Your task to perform on an android device: Show me some nice wallpapers for my phone Image 0: 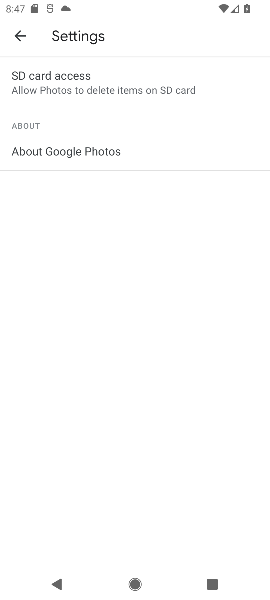
Step 0: press home button
Your task to perform on an android device: Show me some nice wallpapers for my phone Image 1: 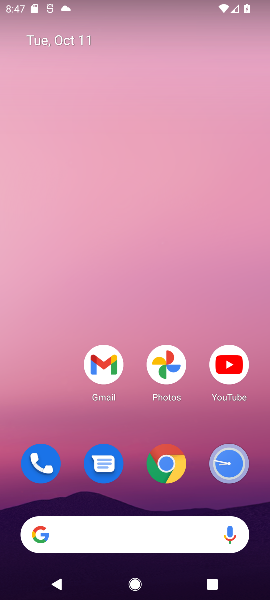
Step 1: drag from (114, 486) to (93, 90)
Your task to perform on an android device: Show me some nice wallpapers for my phone Image 2: 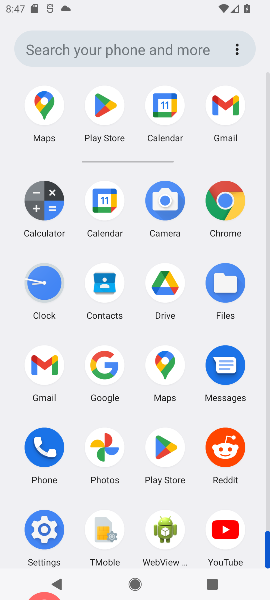
Step 2: click (47, 518)
Your task to perform on an android device: Show me some nice wallpapers for my phone Image 3: 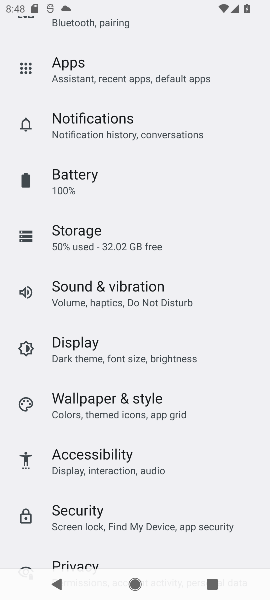
Step 3: click (136, 401)
Your task to perform on an android device: Show me some nice wallpapers for my phone Image 4: 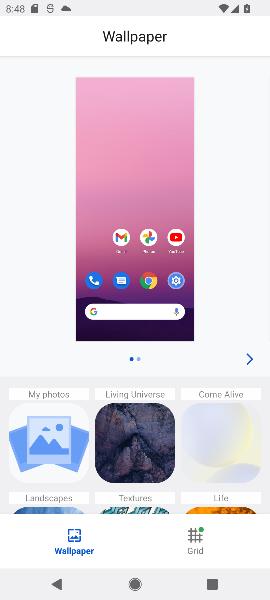
Step 4: click (203, 437)
Your task to perform on an android device: Show me some nice wallpapers for my phone Image 5: 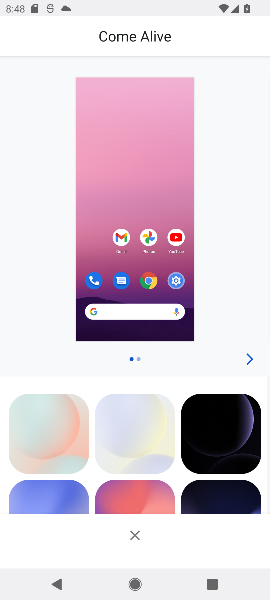
Step 5: task complete